Your task to perform on an android device: open chrome and create a bookmark for the current page Image 0: 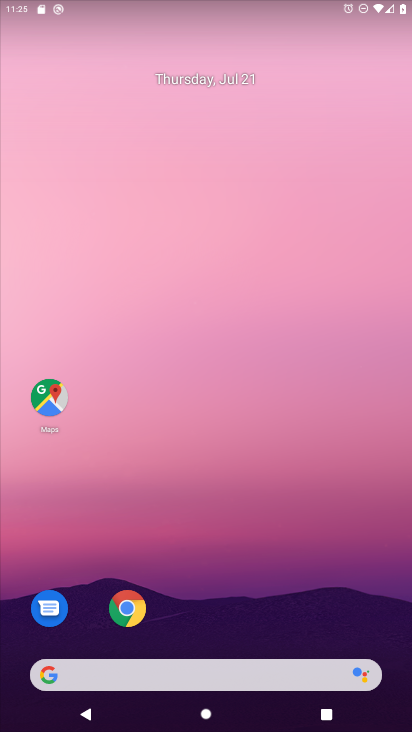
Step 0: drag from (370, 623) to (0, 168)
Your task to perform on an android device: open chrome and create a bookmark for the current page Image 1: 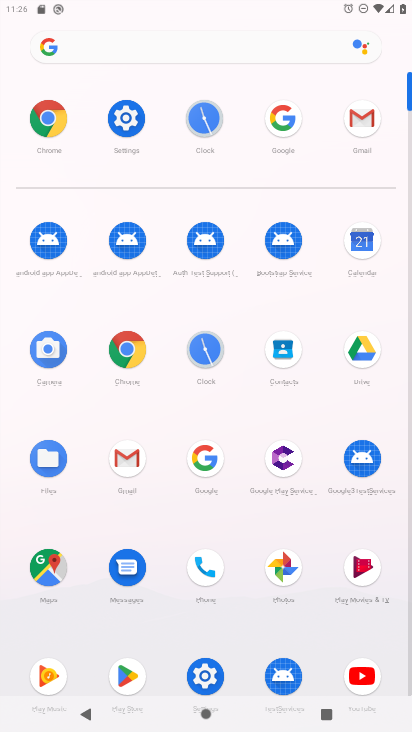
Step 1: click (139, 367)
Your task to perform on an android device: open chrome and create a bookmark for the current page Image 2: 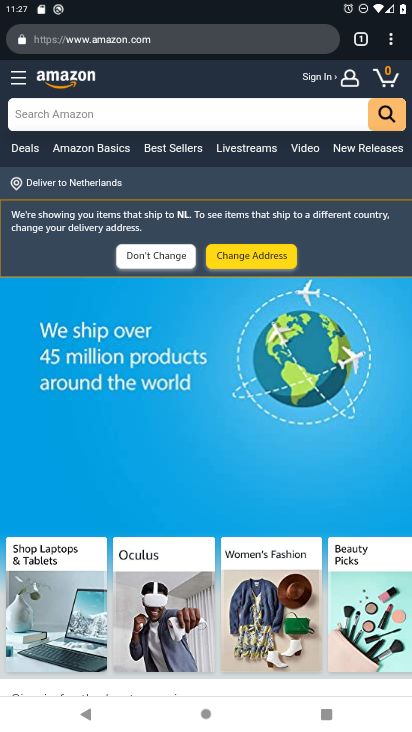
Step 2: click (396, 37)
Your task to perform on an android device: open chrome and create a bookmark for the current page Image 3: 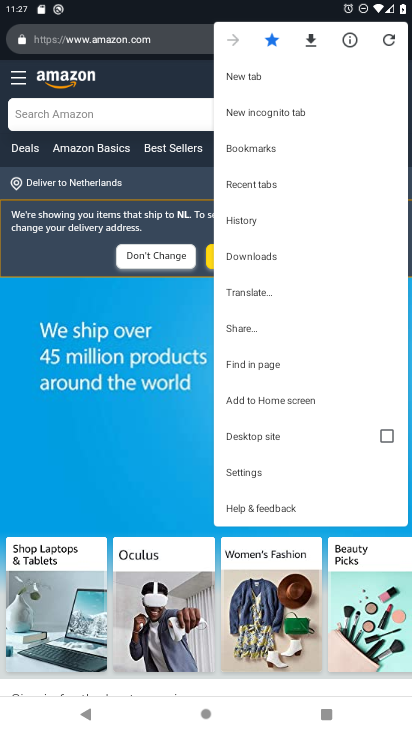
Step 3: task complete